Your task to perform on an android device: open sync settings in chrome Image 0: 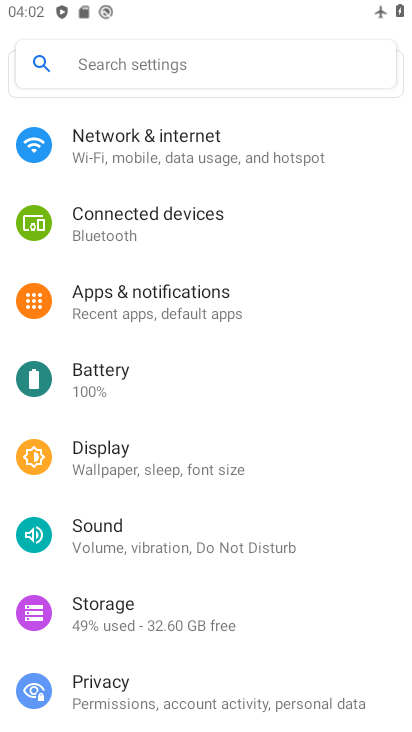
Step 0: press home button
Your task to perform on an android device: open sync settings in chrome Image 1: 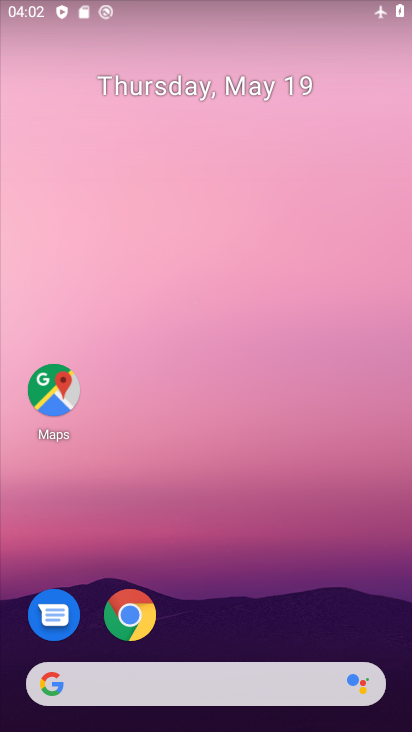
Step 1: click (137, 627)
Your task to perform on an android device: open sync settings in chrome Image 2: 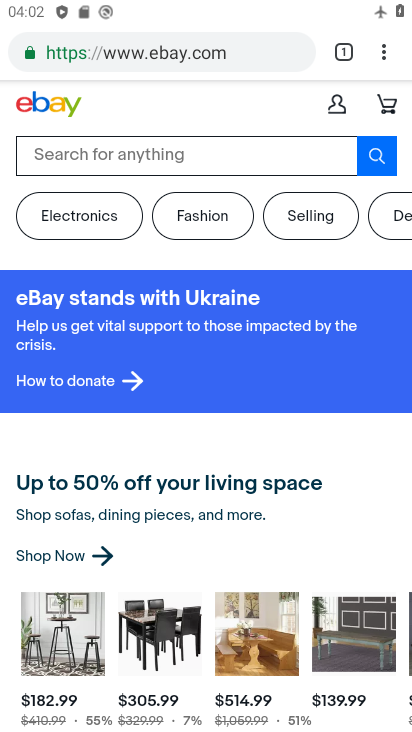
Step 2: click (386, 53)
Your task to perform on an android device: open sync settings in chrome Image 3: 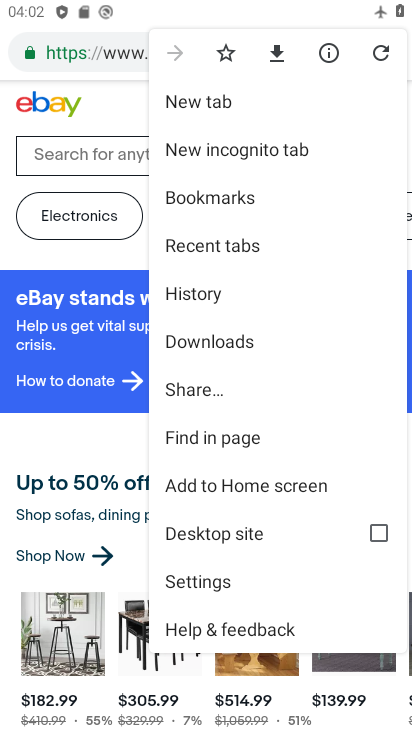
Step 3: click (223, 586)
Your task to perform on an android device: open sync settings in chrome Image 4: 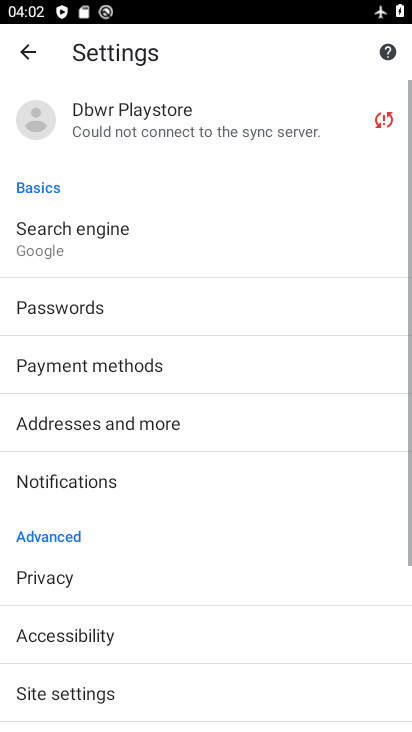
Step 4: click (123, 126)
Your task to perform on an android device: open sync settings in chrome Image 5: 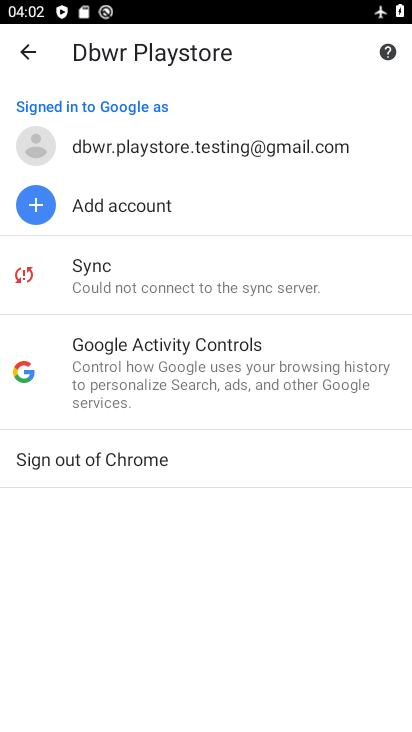
Step 5: click (96, 281)
Your task to perform on an android device: open sync settings in chrome Image 6: 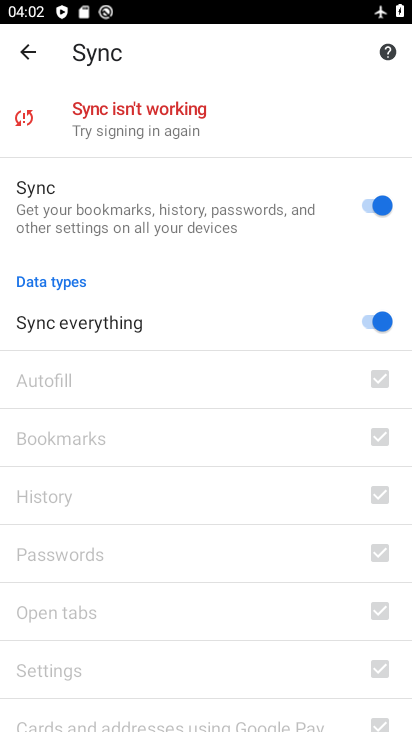
Step 6: task complete